Your task to perform on an android device: change notifications settings Image 0: 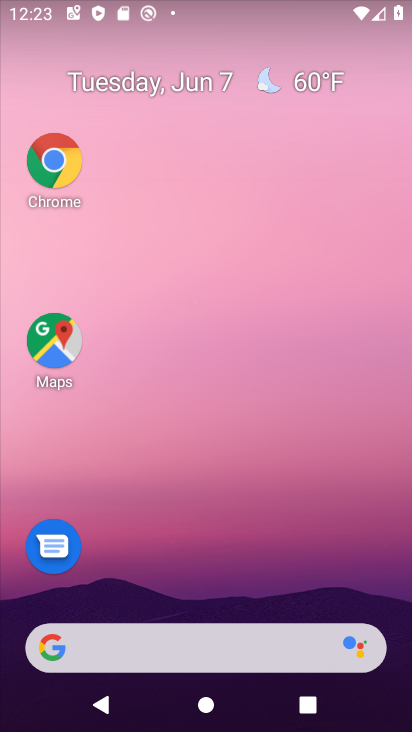
Step 0: click (17, 15)
Your task to perform on an android device: change notifications settings Image 1: 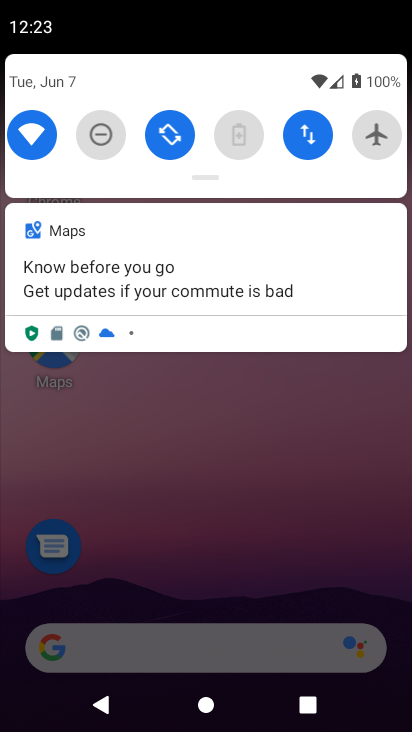
Step 1: drag from (197, 581) to (244, 155)
Your task to perform on an android device: change notifications settings Image 2: 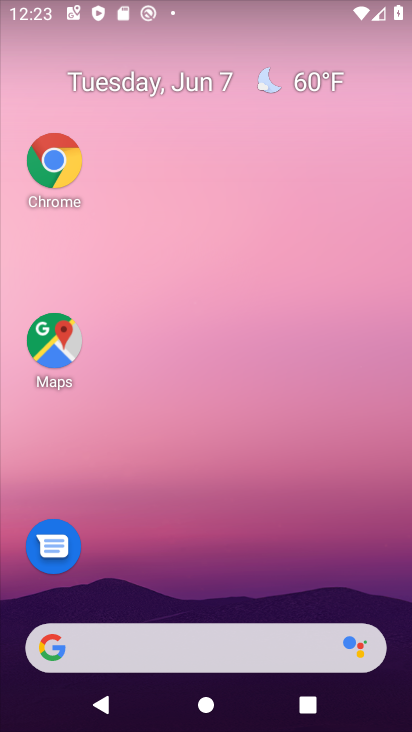
Step 2: drag from (214, 611) to (378, 153)
Your task to perform on an android device: change notifications settings Image 3: 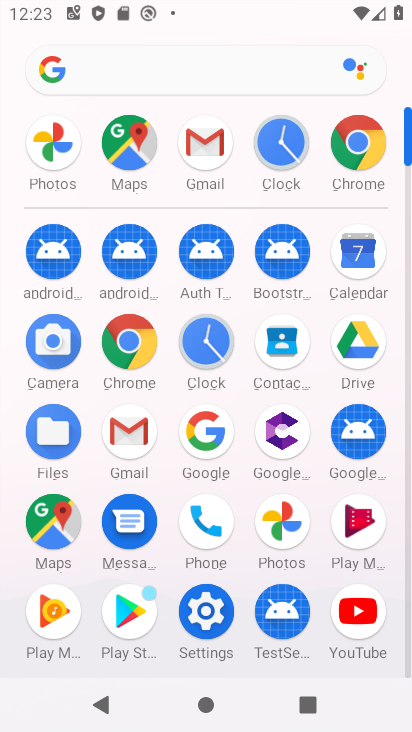
Step 3: click (202, 637)
Your task to perform on an android device: change notifications settings Image 4: 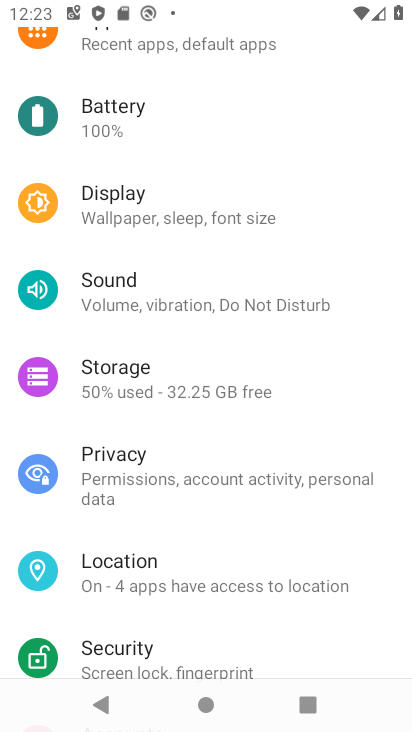
Step 4: drag from (218, 185) to (202, 592)
Your task to perform on an android device: change notifications settings Image 5: 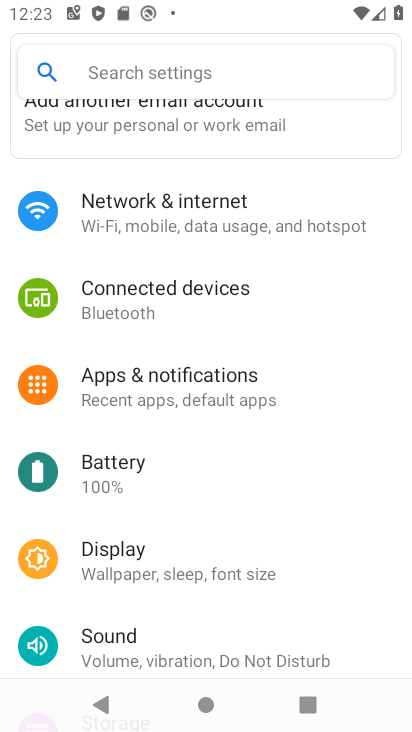
Step 5: click (176, 382)
Your task to perform on an android device: change notifications settings Image 6: 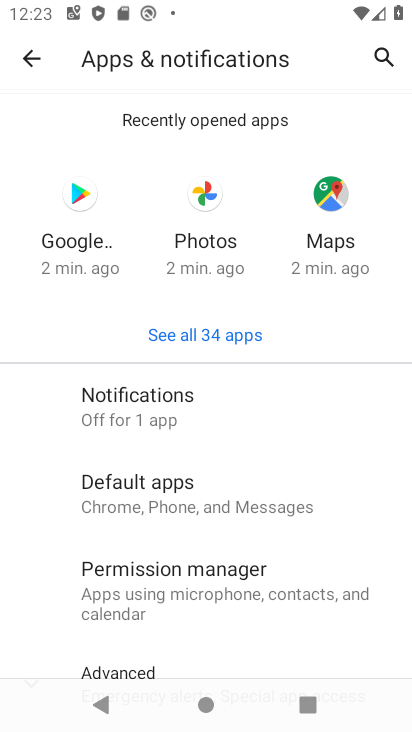
Step 6: click (188, 410)
Your task to perform on an android device: change notifications settings Image 7: 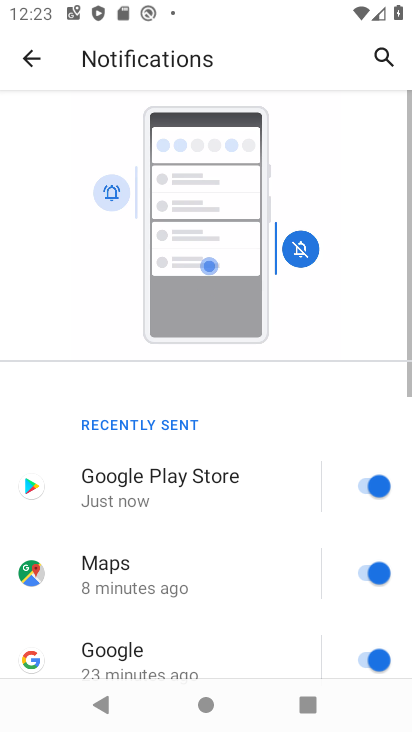
Step 7: drag from (240, 559) to (379, 95)
Your task to perform on an android device: change notifications settings Image 8: 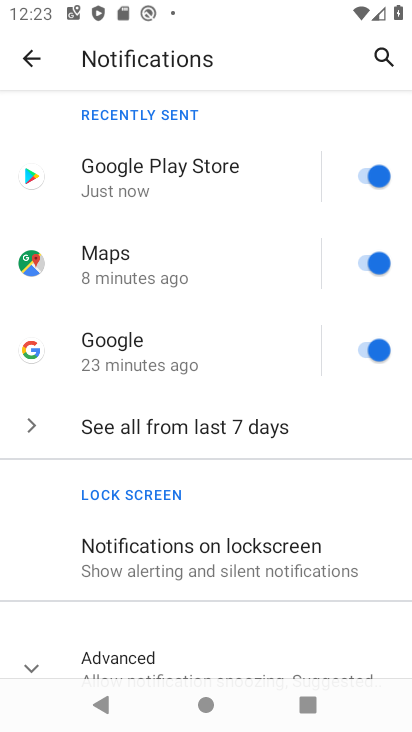
Step 8: drag from (250, 594) to (288, 162)
Your task to perform on an android device: change notifications settings Image 9: 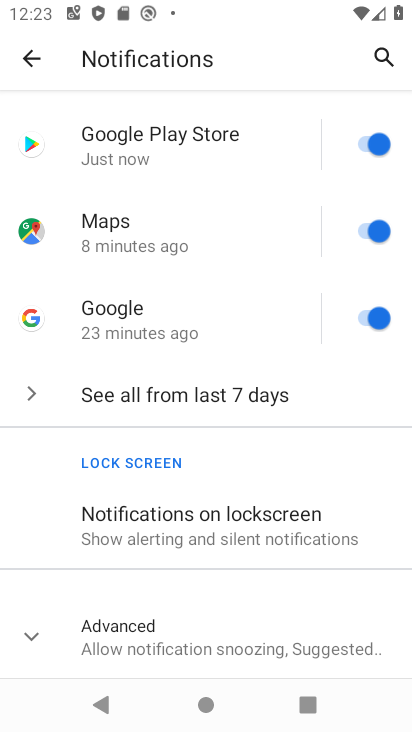
Step 9: drag from (216, 542) to (280, 173)
Your task to perform on an android device: change notifications settings Image 10: 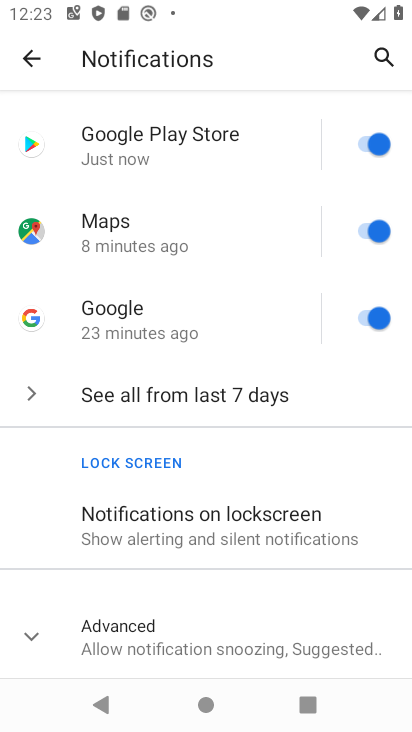
Step 10: click (371, 239)
Your task to perform on an android device: change notifications settings Image 11: 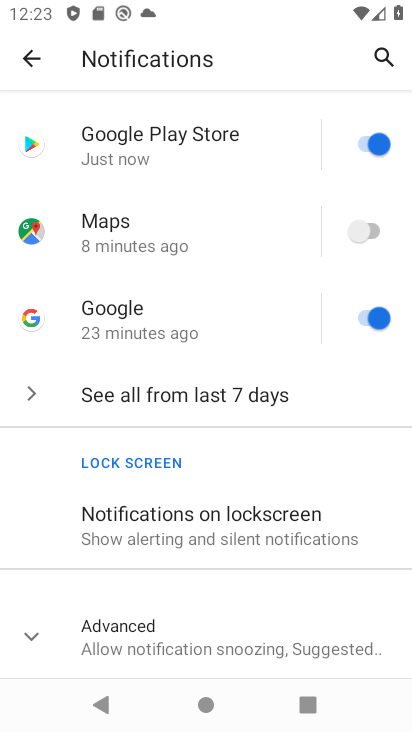
Step 11: task complete